Your task to perform on an android device: change keyboard looks Image 0: 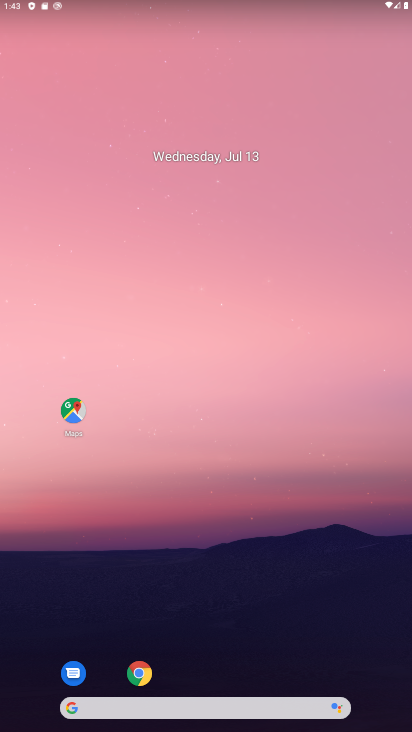
Step 0: drag from (267, 674) to (160, 0)
Your task to perform on an android device: change keyboard looks Image 1: 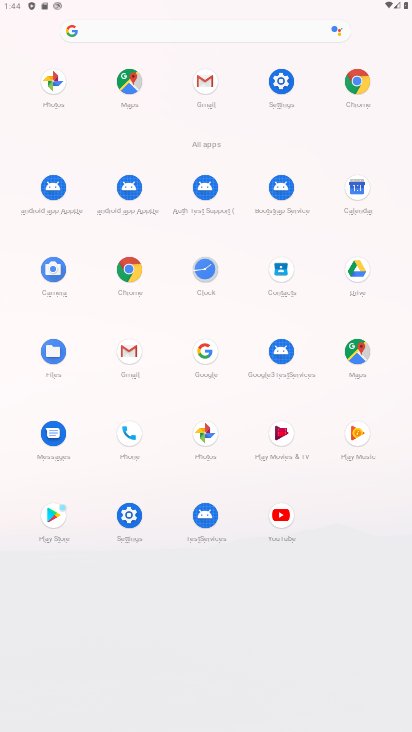
Step 1: click (280, 86)
Your task to perform on an android device: change keyboard looks Image 2: 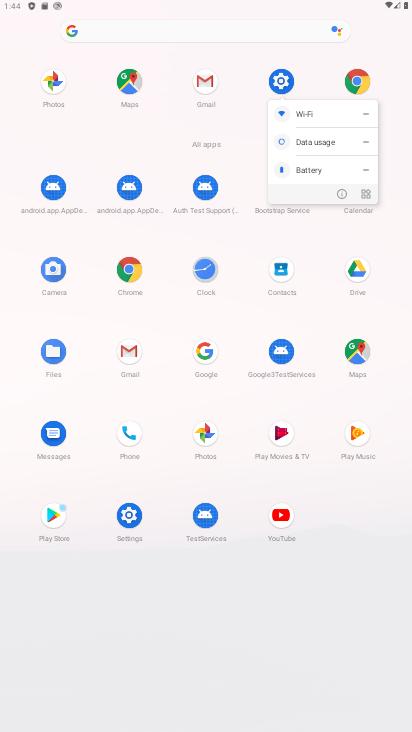
Step 2: click (280, 88)
Your task to perform on an android device: change keyboard looks Image 3: 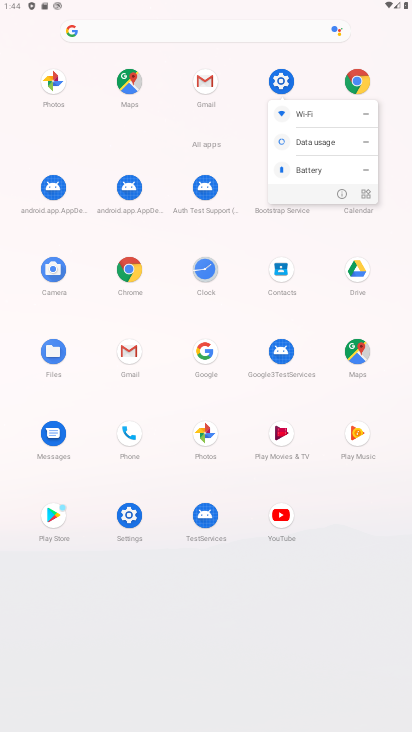
Step 3: click (280, 88)
Your task to perform on an android device: change keyboard looks Image 4: 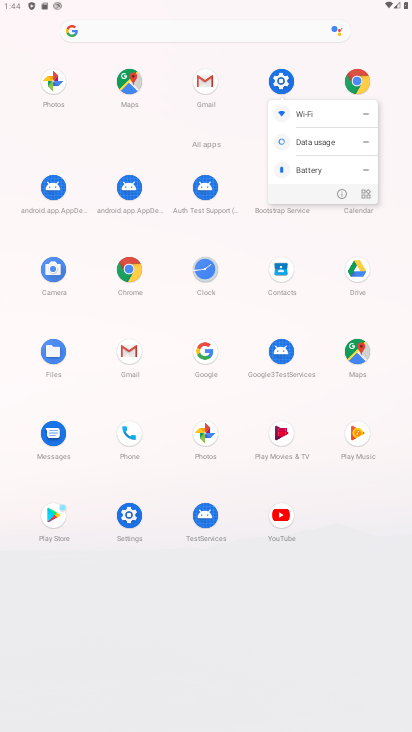
Step 4: click (285, 76)
Your task to perform on an android device: change keyboard looks Image 5: 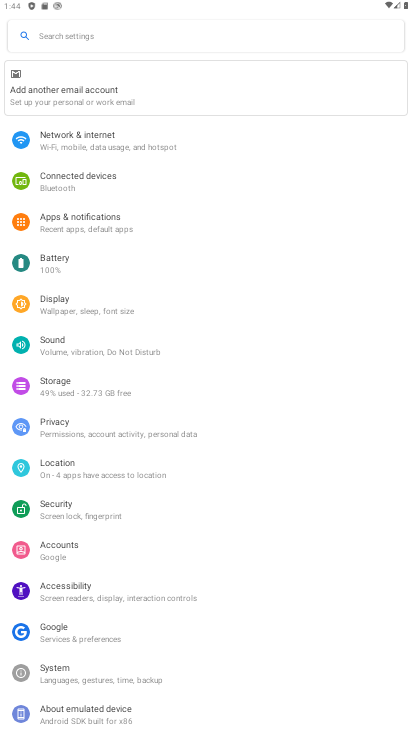
Step 5: drag from (140, 652) to (184, 205)
Your task to perform on an android device: change keyboard looks Image 6: 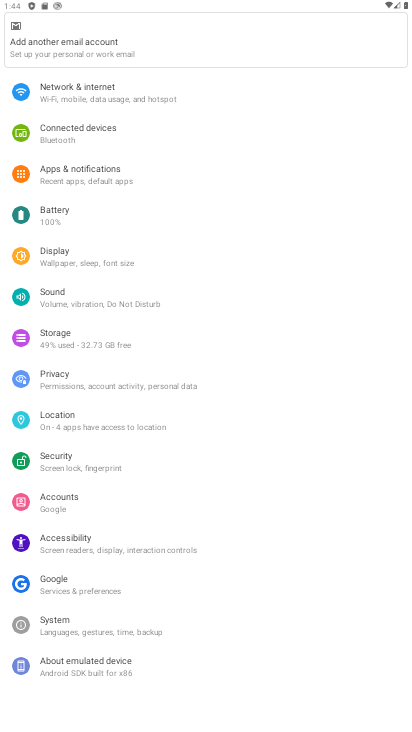
Step 6: click (88, 627)
Your task to perform on an android device: change keyboard looks Image 7: 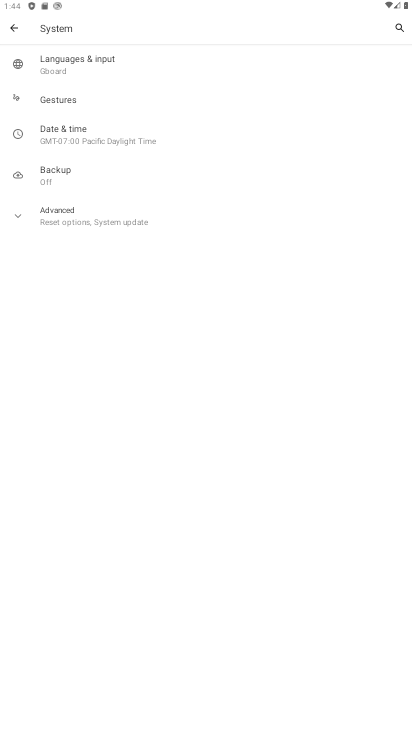
Step 7: click (58, 98)
Your task to perform on an android device: change keyboard looks Image 8: 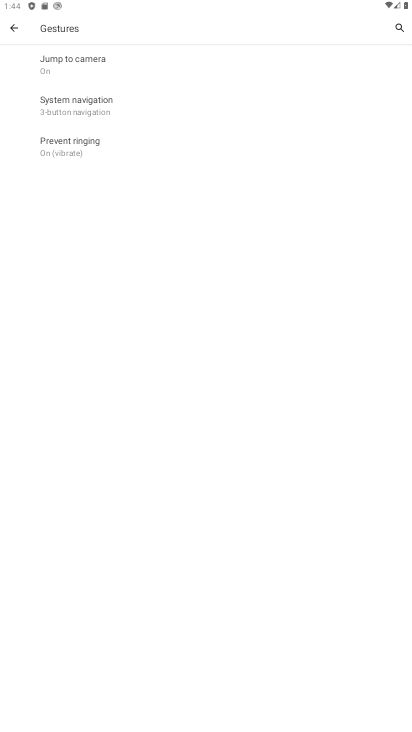
Step 8: click (12, 29)
Your task to perform on an android device: change keyboard looks Image 9: 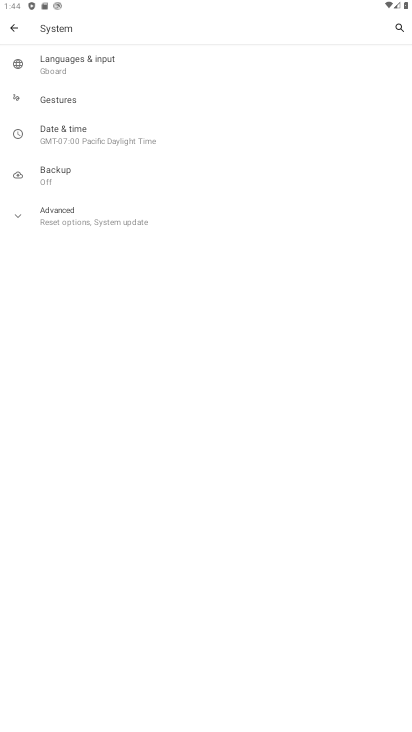
Step 9: click (94, 66)
Your task to perform on an android device: change keyboard looks Image 10: 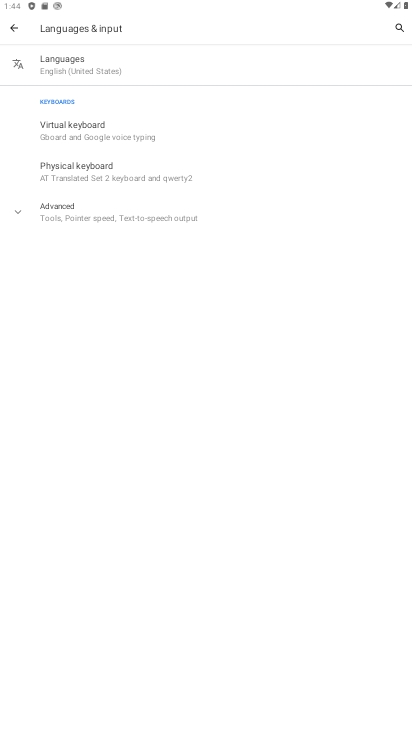
Step 10: click (107, 134)
Your task to perform on an android device: change keyboard looks Image 11: 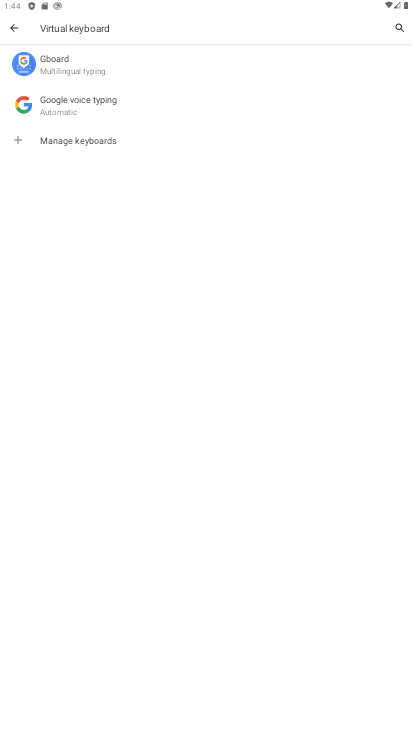
Step 11: click (56, 66)
Your task to perform on an android device: change keyboard looks Image 12: 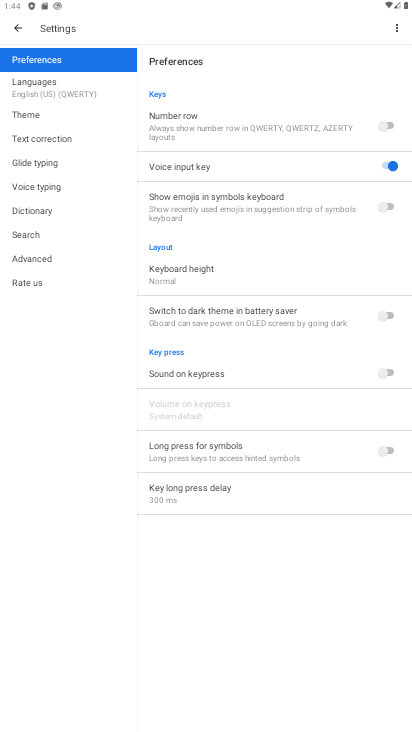
Step 12: click (37, 125)
Your task to perform on an android device: change keyboard looks Image 13: 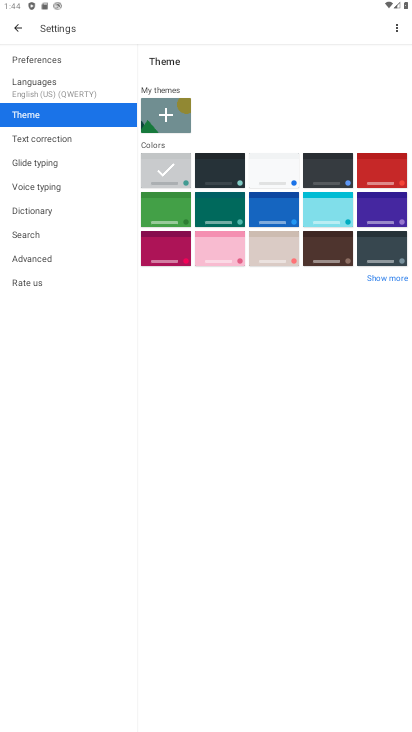
Step 13: click (225, 172)
Your task to perform on an android device: change keyboard looks Image 14: 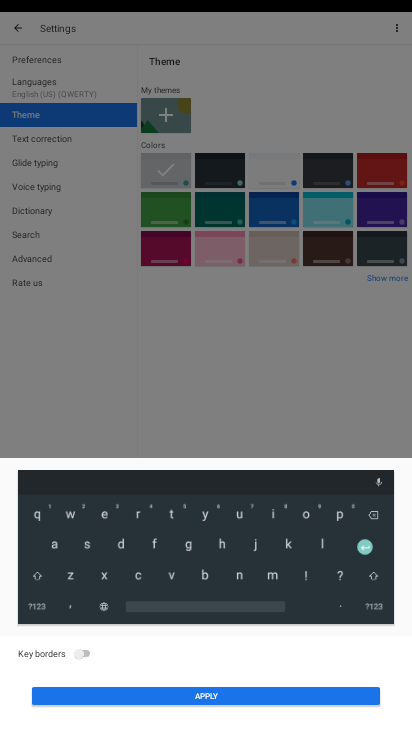
Step 14: click (193, 688)
Your task to perform on an android device: change keyboard looks Image 15: 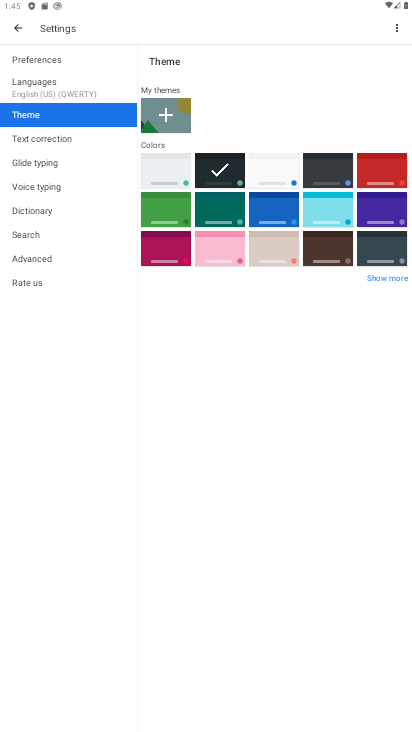
Step 15: task complete